Your task to perform on an android device: turn off translation in the chrome app Image 0: 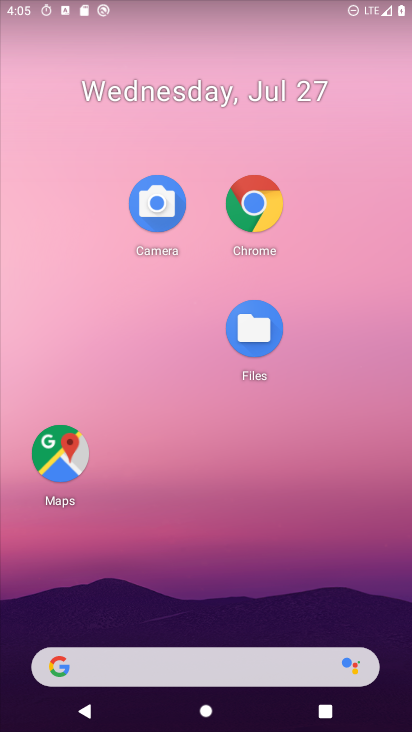
Step 0: click (265, 199)
Your task to perform on an android device: turn off translation in the chrome app Image 1: 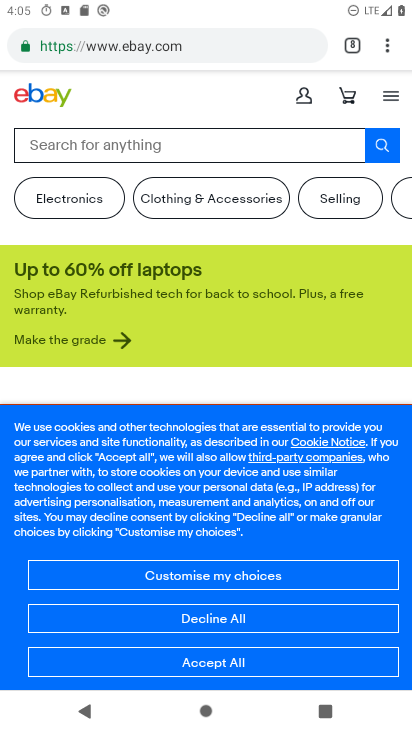
Step 1: click (384, 47)
Your task to perform on an android device: turn off translation in the chrome app Image 2: 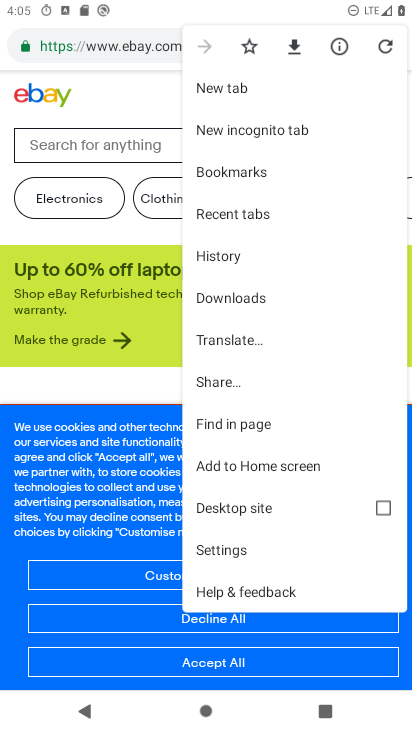
Step 2: click (250, 555)
Your task to perform on an android device: turn off translation in the chrome app Image 3: 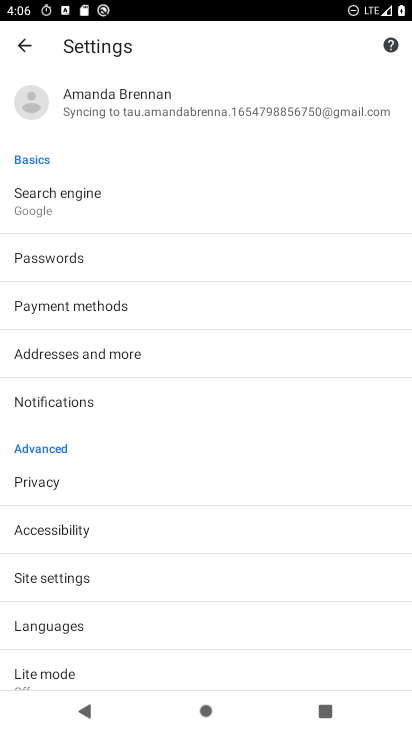
Step 3: click (87, 614)
Your task to perform on an android device: turn off translation in the chrome app Image 4: 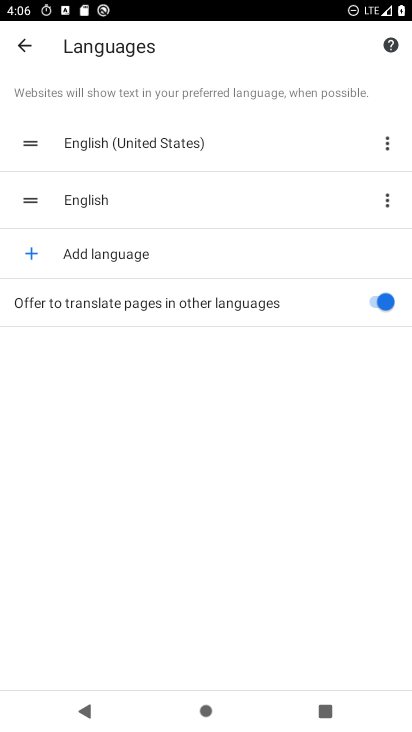
Step 4: click (372, 298)
Your task to perform on an android device: turn off translation in the chrome app Image 5: 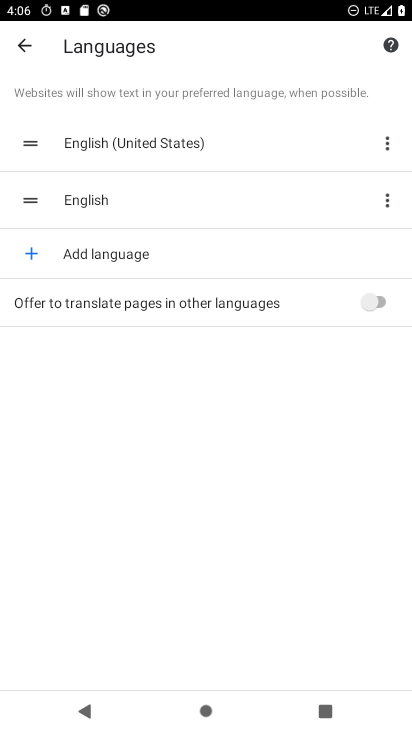
Step 5: task complete